Your task to perform on an android device: Turn off the flashlight Image 0: 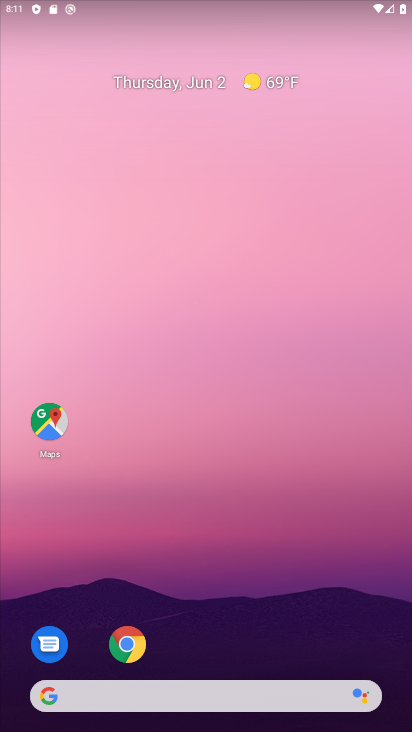
Step 0: drag from (250, 640) to (175, 7)
Your task to perform on an android device: Turn off the flashlight Image 1: 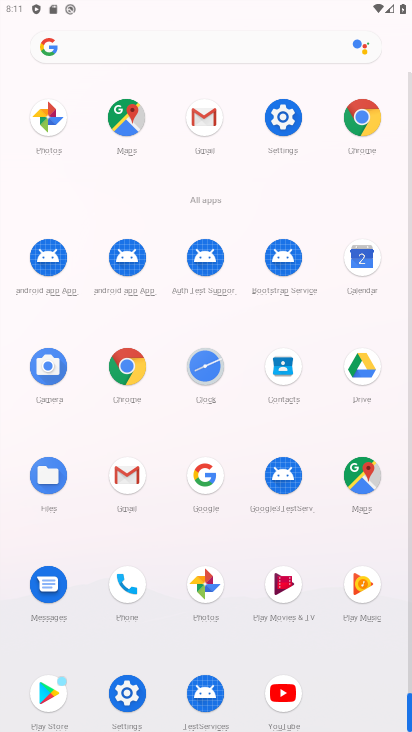
Step 1: click (282, 116)
Your task to perform on an android device: Turn off the flashlight Image 2: 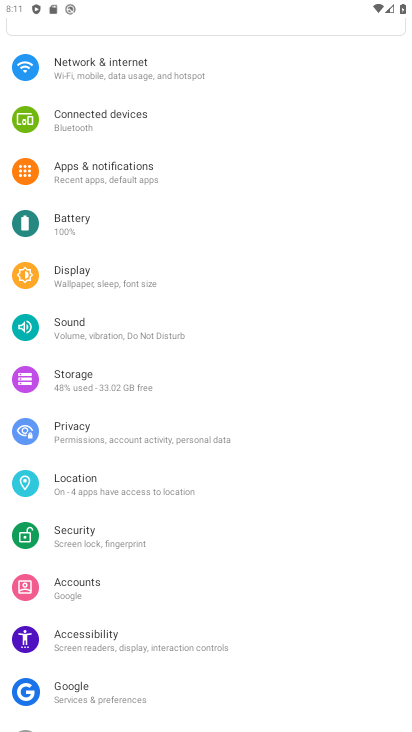
Step 2: click (193, 69)
Your task to perform on an android device: Turn off the flashlight Image 3: 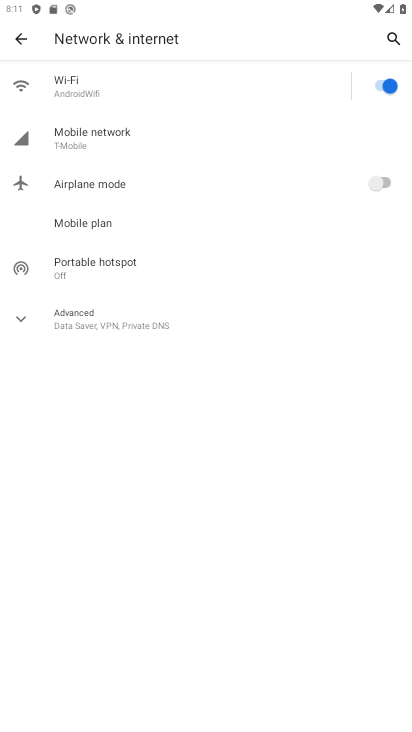
Step 3: click (27, 317)
Your task to perform on an android device: Turn off the flashlight Image 4: 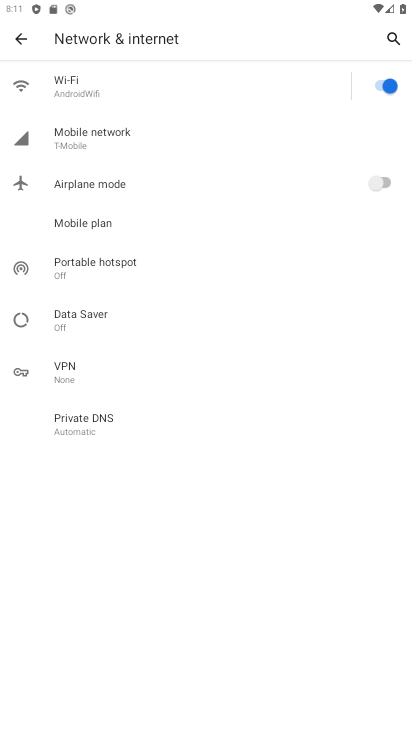
Step 4: task complete